Your task to perform on an android device: turn on notifications settings in the gmail app Image 0: 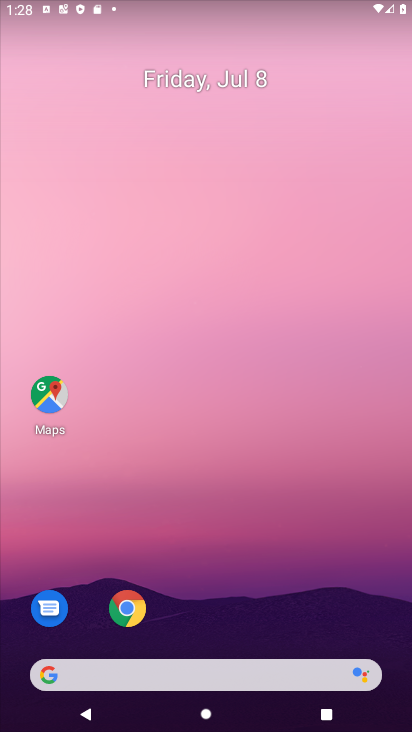
Step 0: drag from (389, 635) to (315, 126)
Your task to perform on an android device: turn on notifications settings in the gmail app Image 1: 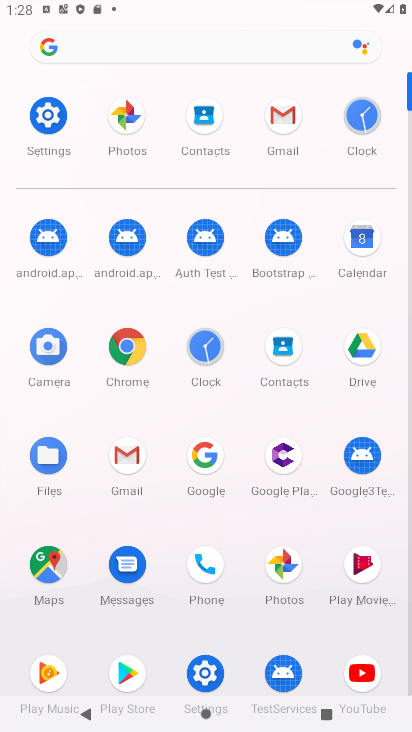
Step 1: click (127, 451)
Your task to perform on an android device: turn on notifications settings in the gmail app Image 2: 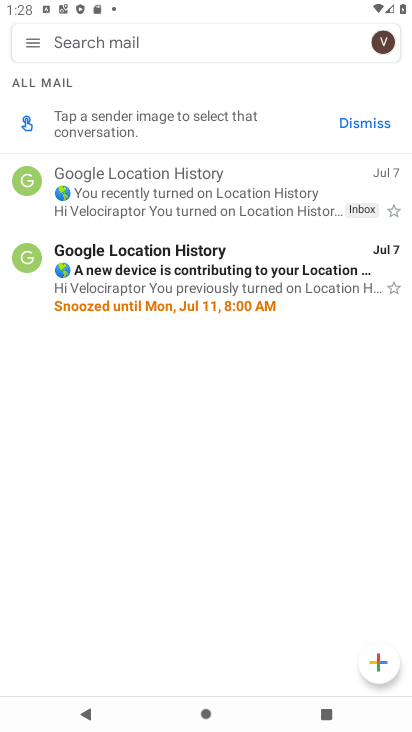
Step 2: click (31, 45)
Your task to perform on an android device: turn on notifications settings in the gmail app Image 3: 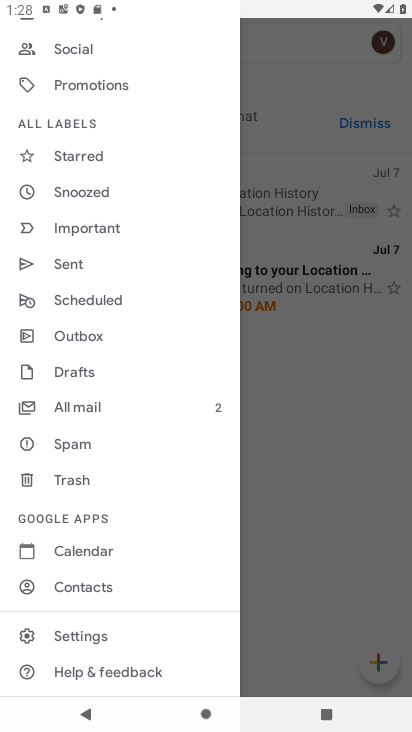
Step 3: click (87, 630)
Your task to perform on an android device: turn on notifications settings in the gmail app Image 4: 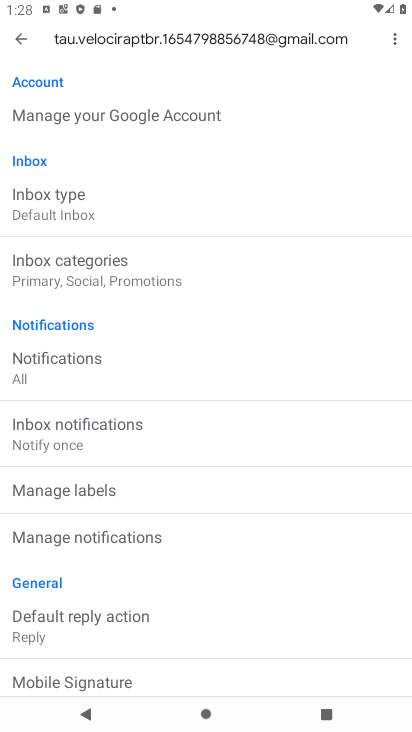
Step 4: click (104, 541)
Your task to perform on an android device: turn on notifications settings in the gmail app Image 5: 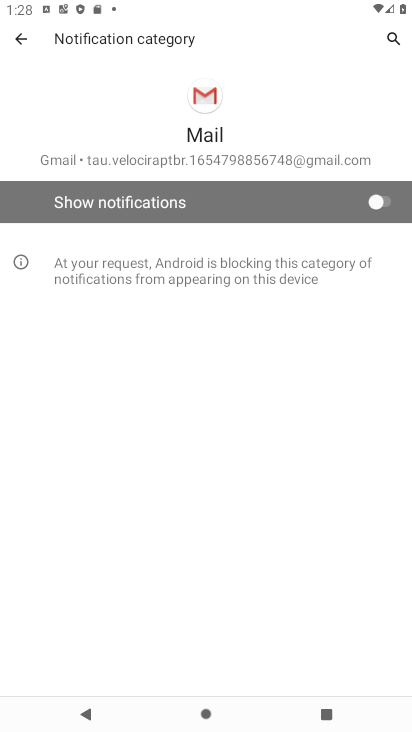
Step 5: click (386, 200)
Your task to perform on an android device: turn on notifications settings in the gmail app Image 6: 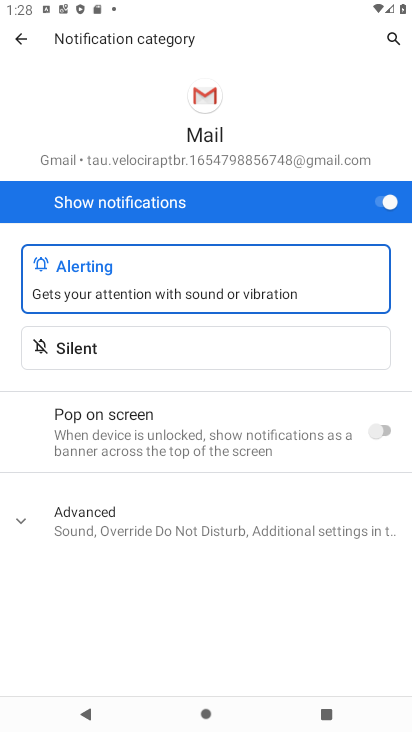
Step 6: task complete